Your task to perform on an android device: Search for vegetarian restaurants on Maps Image 0: 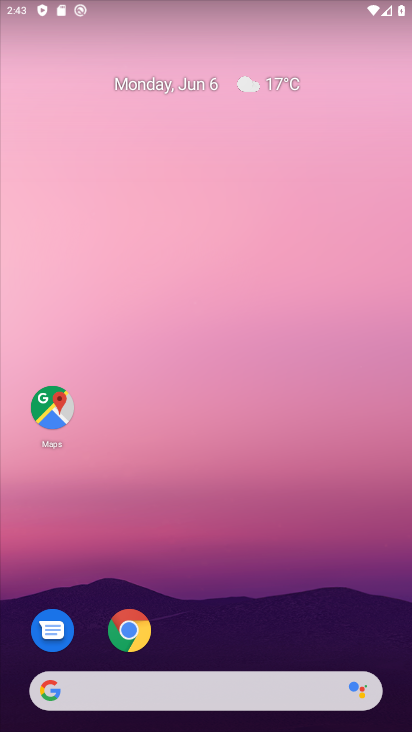
Step 0: click (37, 400)
Your task to perform on an android device: Search for vegetarian restaurants on Maps Image 1: 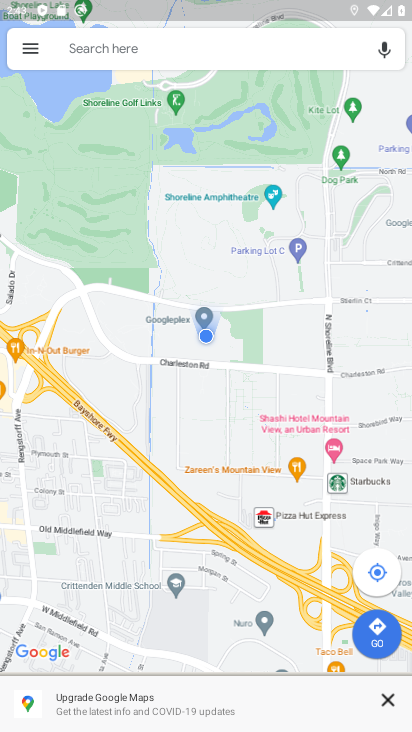
Step 1: click (133, 54)
Your task to perform on an android device: Search for vegetarian restaurants on Maps Image 2: 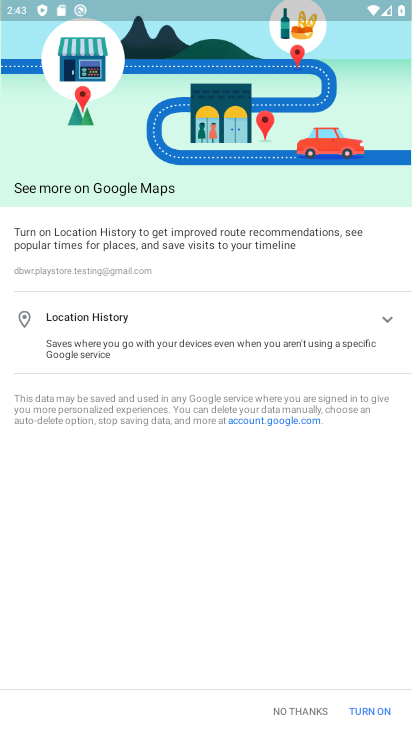
Step 2: click (301, 719)
Your task to perform on an android device: Search for vegetarian restaurants on Maps Image 3: 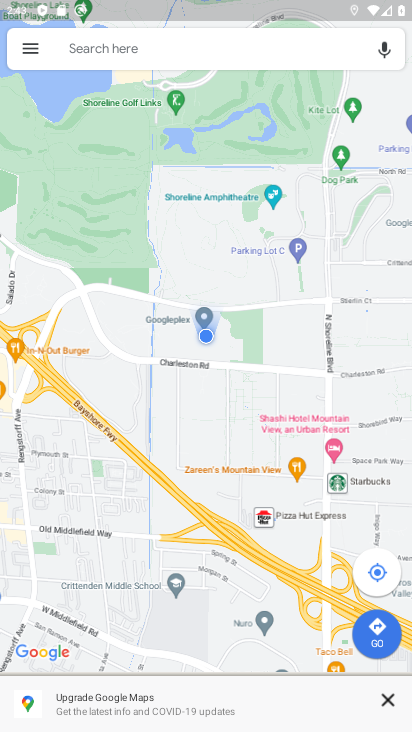
Step 3: click (152, 58)
Your task to perform on an android device: Search for vegetarian restaurants on Maps Image 4: 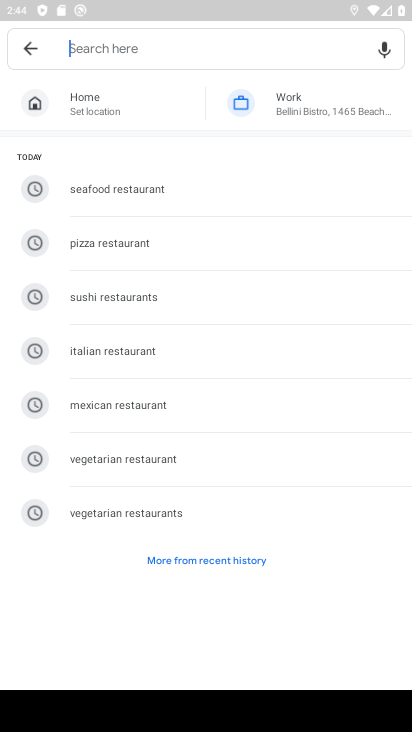
Step 4: click (128, 457)
Your task to perform on an android device: Search for vegetarian restaurants on Maps Image 5: 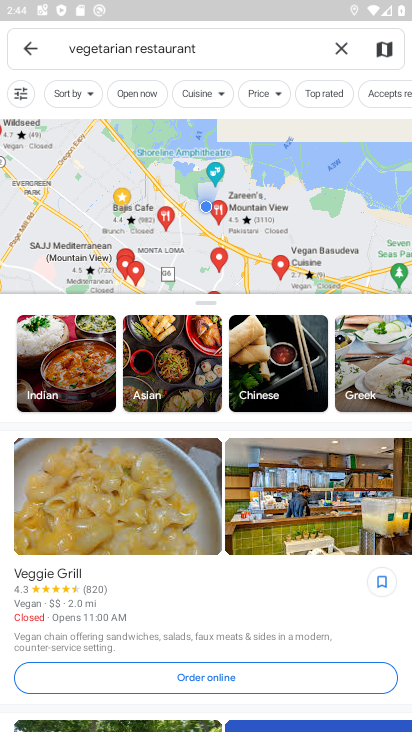
Step 5: task complete